Your task to perform on an android device: Find coffee shops on Maps Image 0: 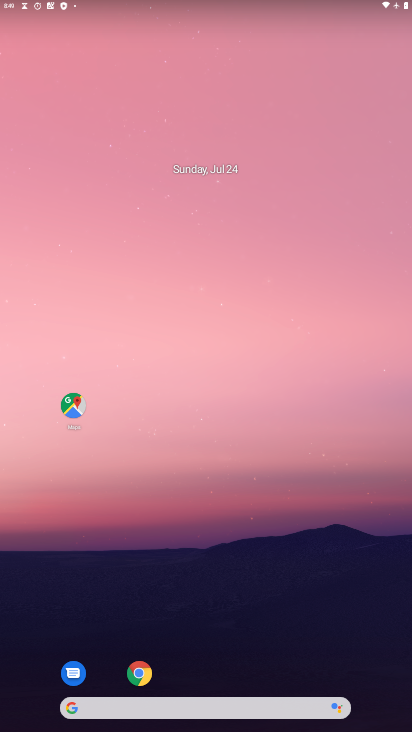
Step 0: drag from (179, 636) to (244, 340)
Your task to perform on an android device: Find coffee shops on Maps Image 1: 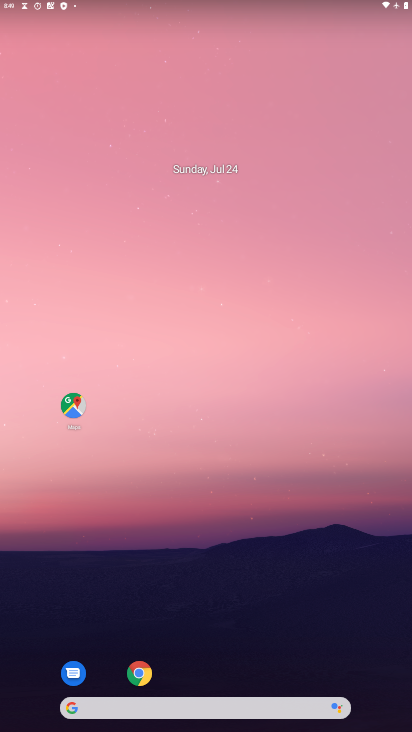
Step 1: drag from (211, 646) to (255, 166)
Your task to perform on an android device: Find coffee shops on Maps Image 2: 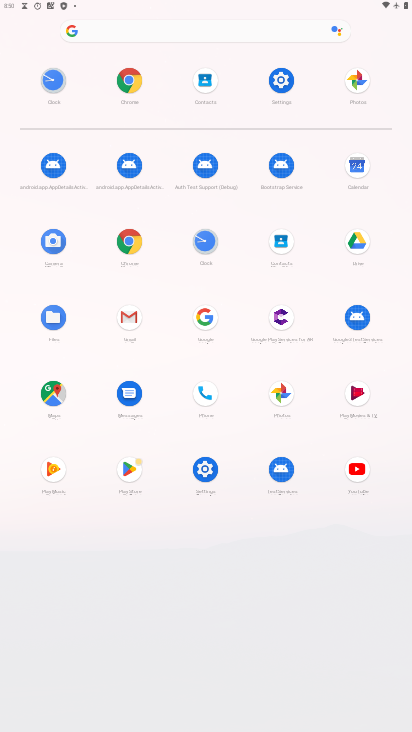
Step 2: drag from (356, 567) to (398, 267)
Your task to perform on an android device: Find coffee shops on Maps Image 3: 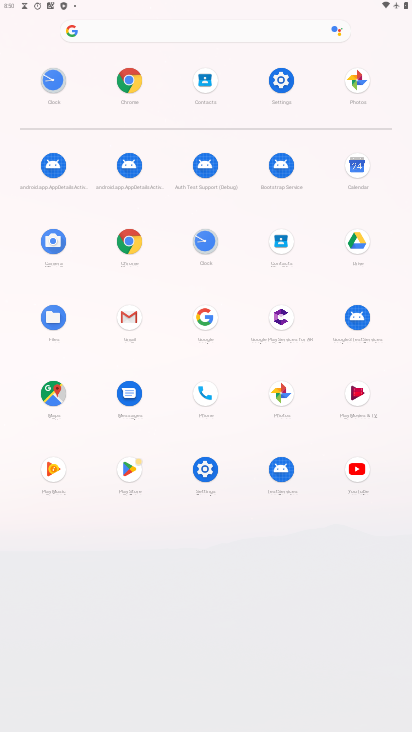
Step 3: drag from (191, 544) to (195, 278)
Your task to perform on an android device: Find coffee shops on Maps Image 4: 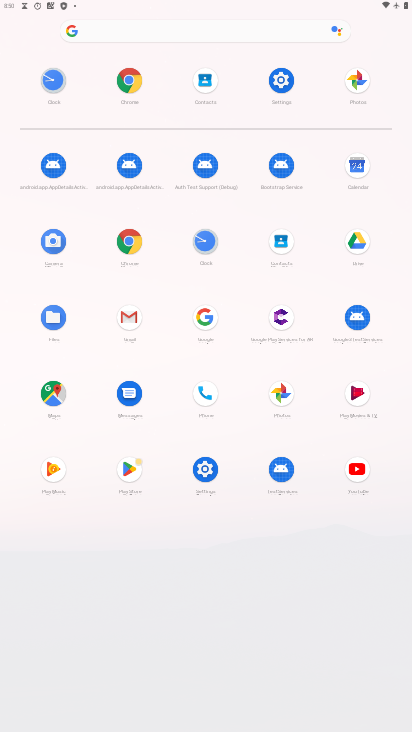
Step 4: click (50, 393)
Your task to perform on an android device: Find coffee shops on Maps Image 5: 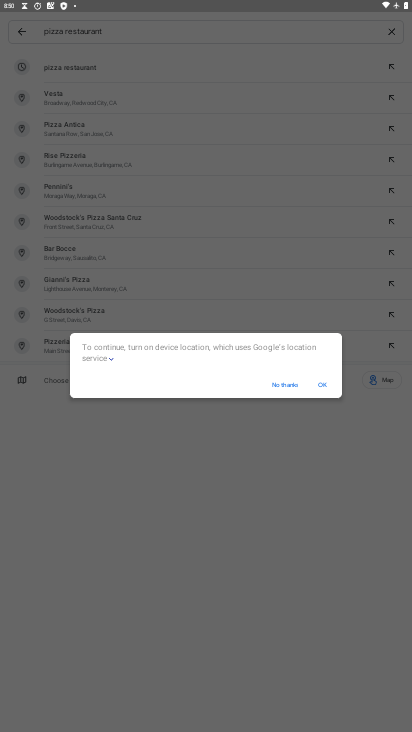
Step 5: press home button
Your task to perform on an android device: Find coffee shops on Maps Image 6: 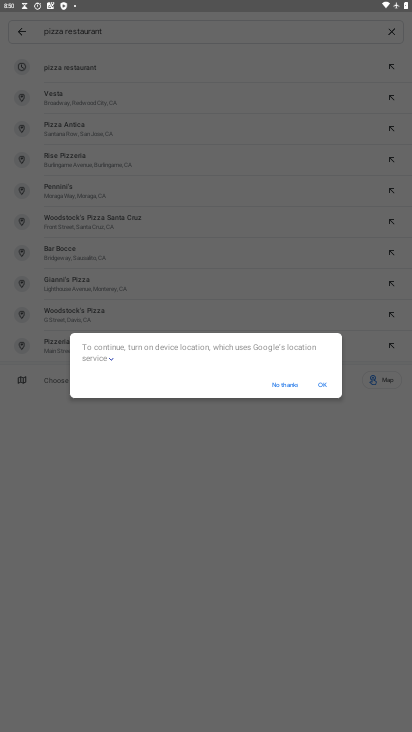
Step 6: press home button
Your task to perform on an android device: Find coffee shops on Maps Image 7: 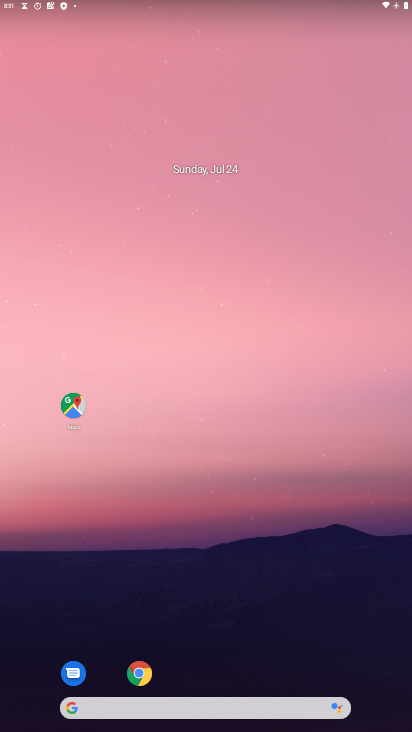
Step 7: drag from (206, 542) to (345, 66)
Your task to perform on an android device: Find coffee shops on Maps Image 8: 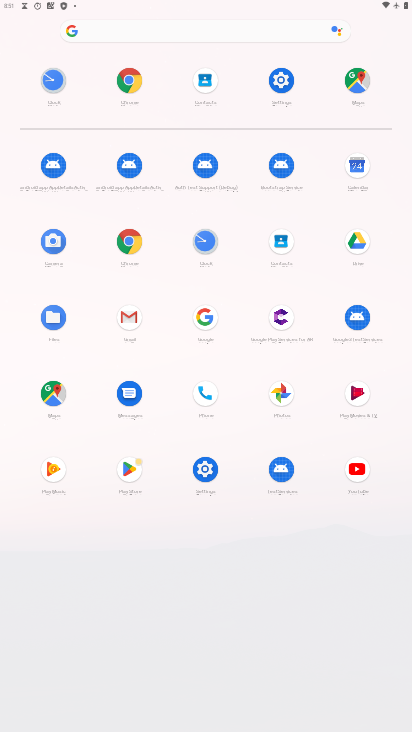
Step 8: drag from (261, 596) to (348, 95)
Your task to perform on an android device: Find coffee shops on Maps Image 9: 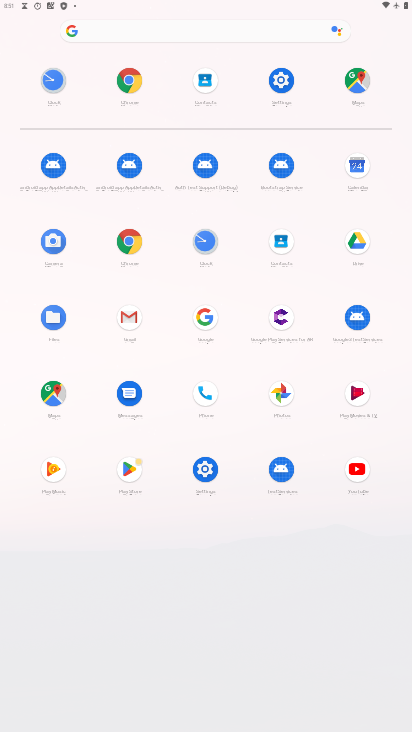
Step 9: drag from (223, 627) to (300, 286)
Your task to perform on an android device: Find coffee shops on Maps Image 10: 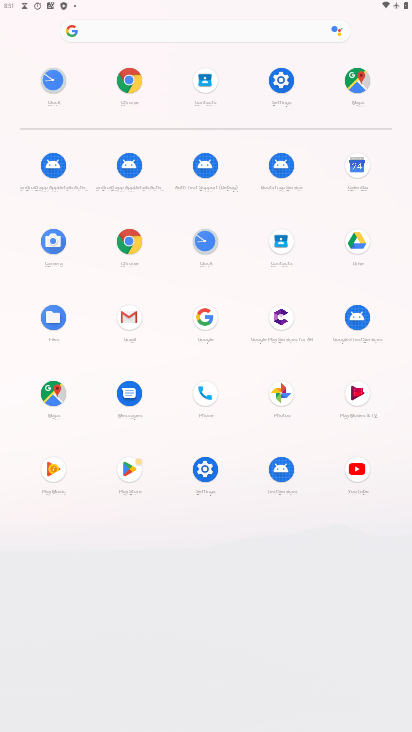
Step 10: click (52, 391)
Your task to perform on an android device: Find coffee shops on Maps Image 11: 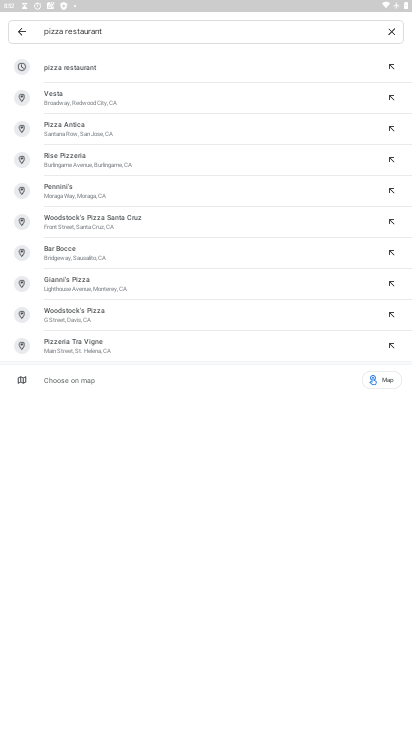
Step 11: drag from (233, 551) to (324, 263)
Your task to perform on an android device: Find coffee shops on Maps Image 12: 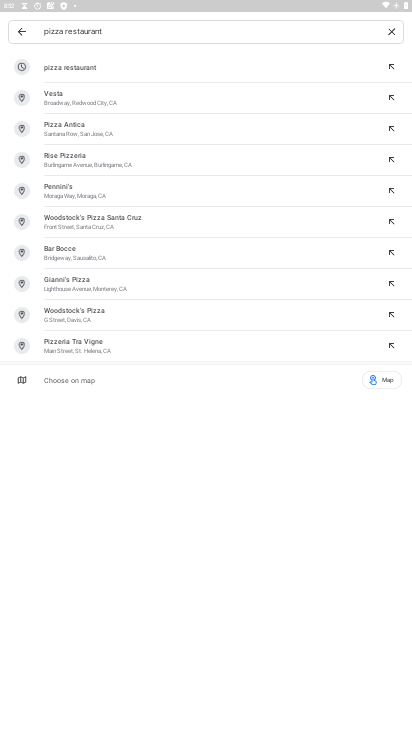
Step 12: drag from (146, 650) to (153, 283)
Your task to perform on an android device: Find coffee shops on Maps Image 13: 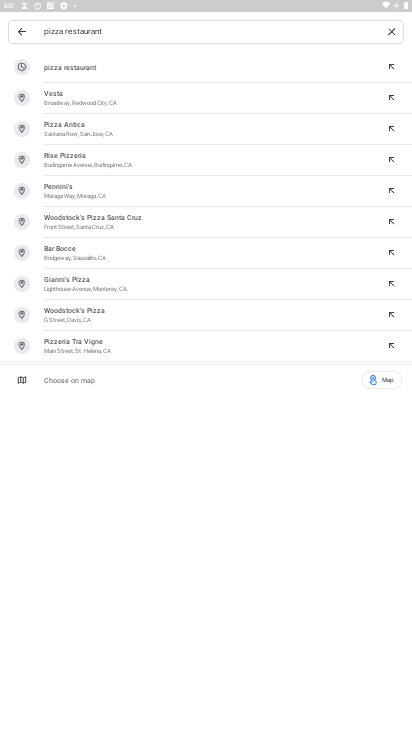
Step 13: click (150, 33)
Your task to perform on an android device: Find coffee shops on Maps Image 14: 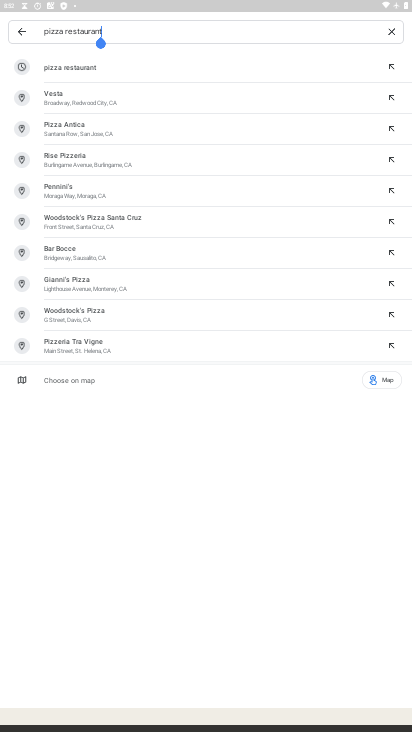
Step 14: click (392, 24)
Your task to perform on an android device: Find coffee shops on Maps Image 15: 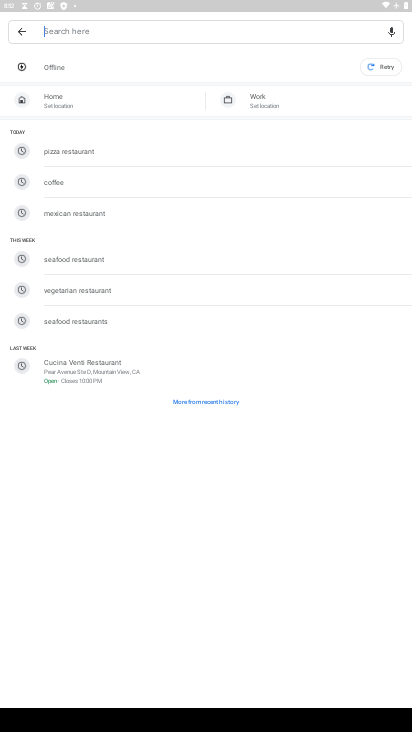
Step 15: click (123, 177)
Your task to perform on an android device: Find coffee shops on Maps Image 16: 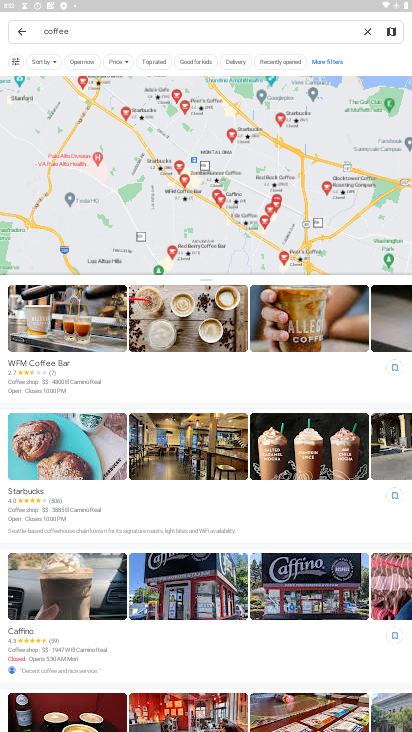
Step 16: task complete